Your task to perform on an android device: See recent photos Image 0: 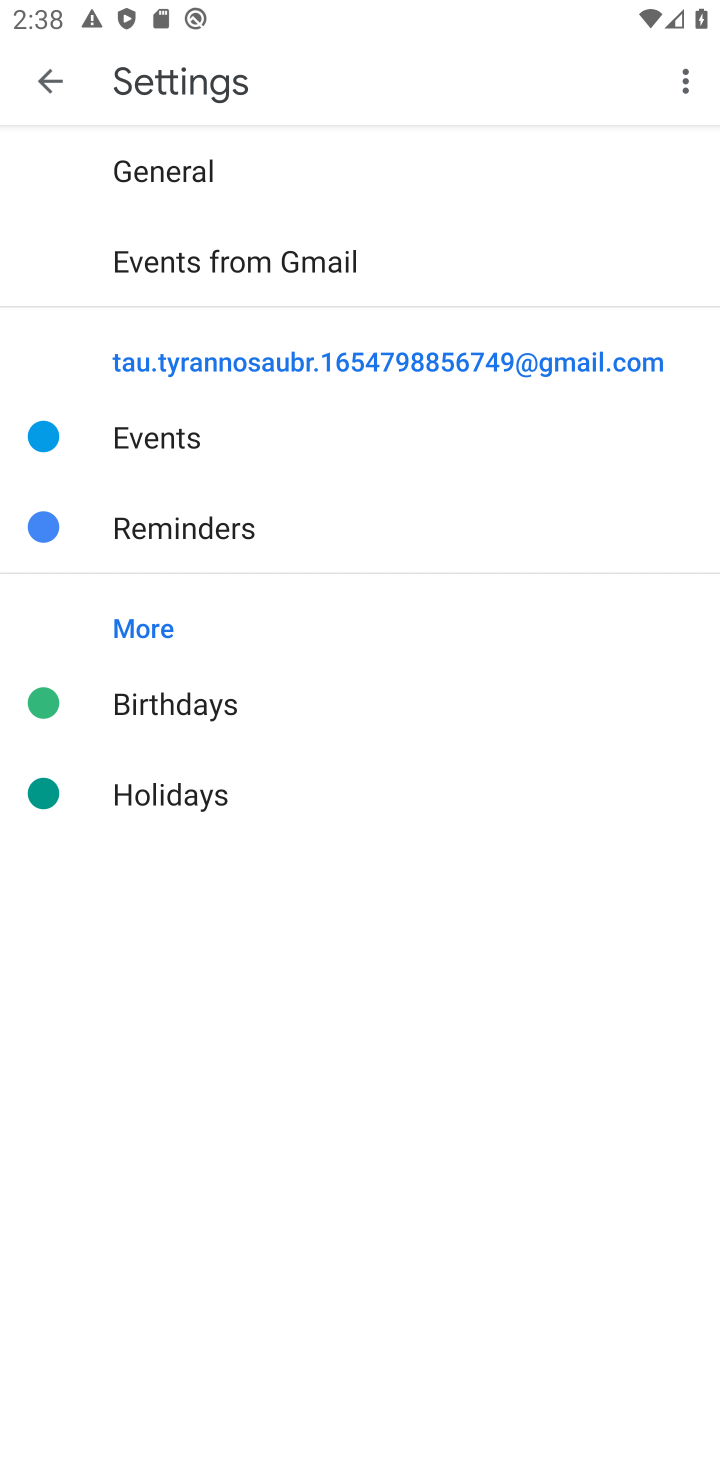
Step 0: press home button
Your task to perform on an android device: See recent photos Image 1: 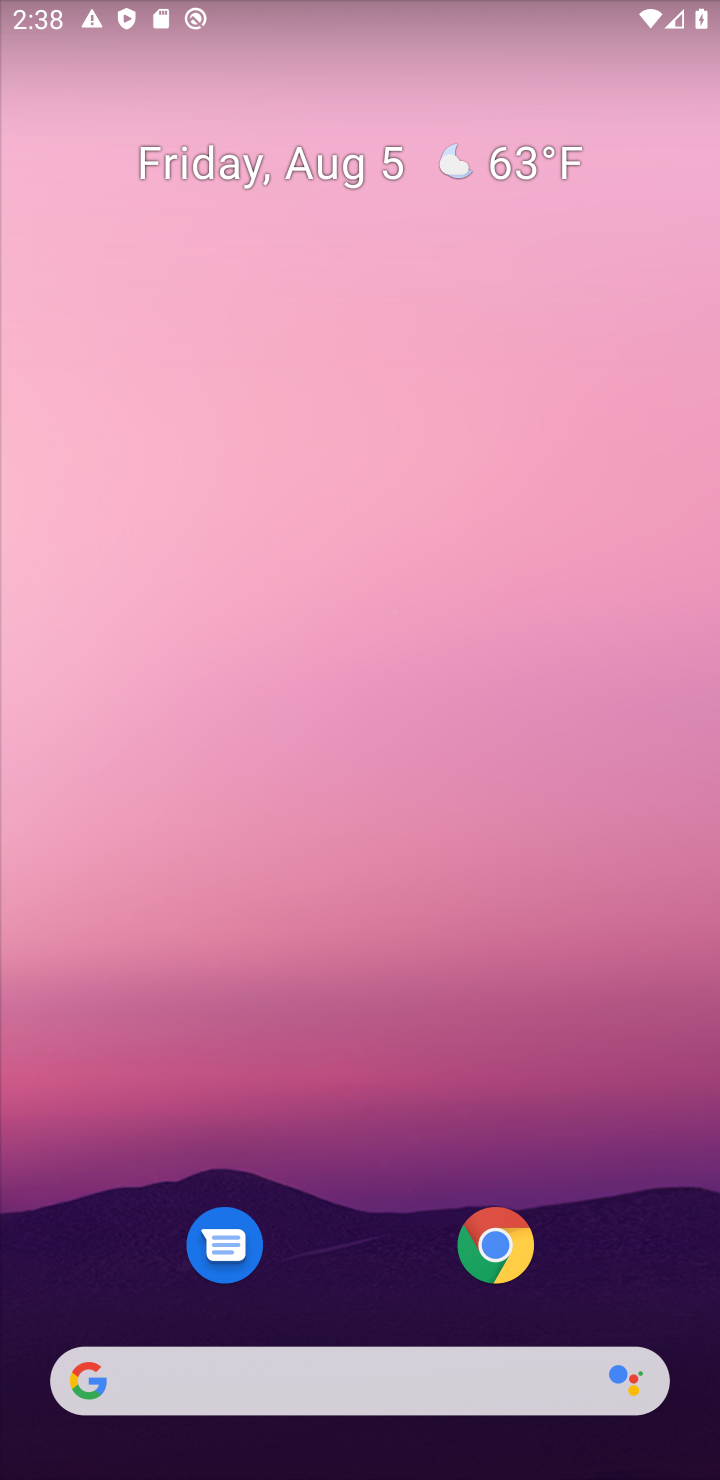
Step 1: click (369, 511)
Your task to perform on an android device: See recent photos Image 2: 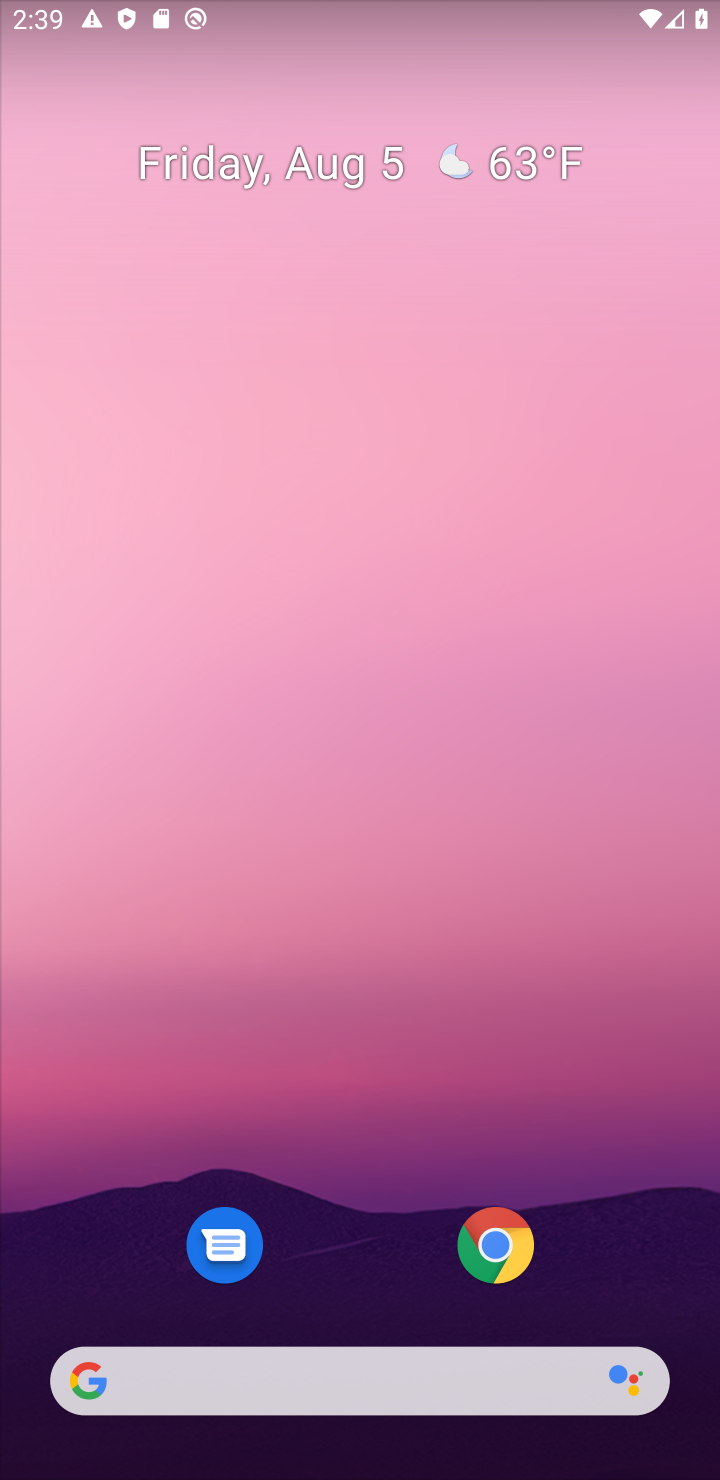
Step 2: drag from (303, 1299) to (414, 482)
Your task to perform on an android device: See recent photos Image 3: 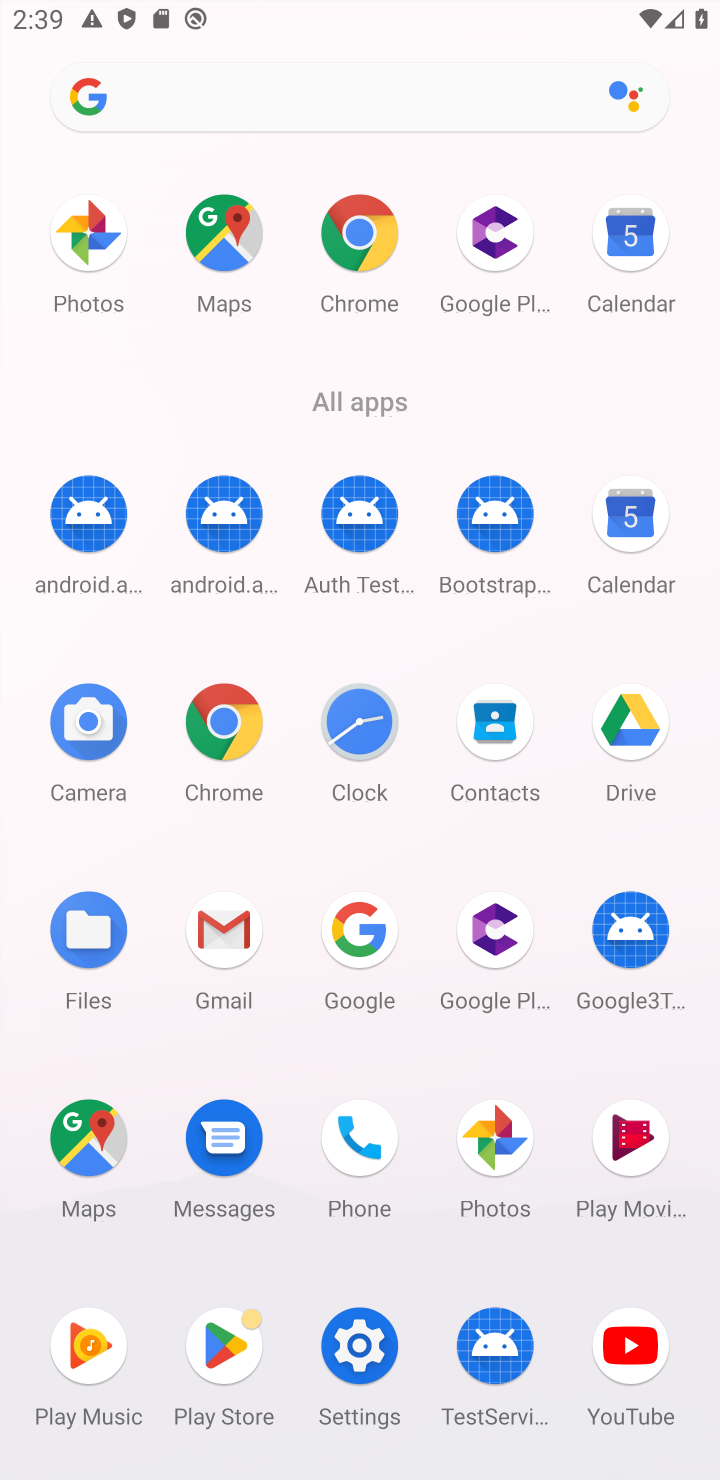
Step 3: click (496, 1126)
Your task to perform on an android device: See recent photos Image 4: 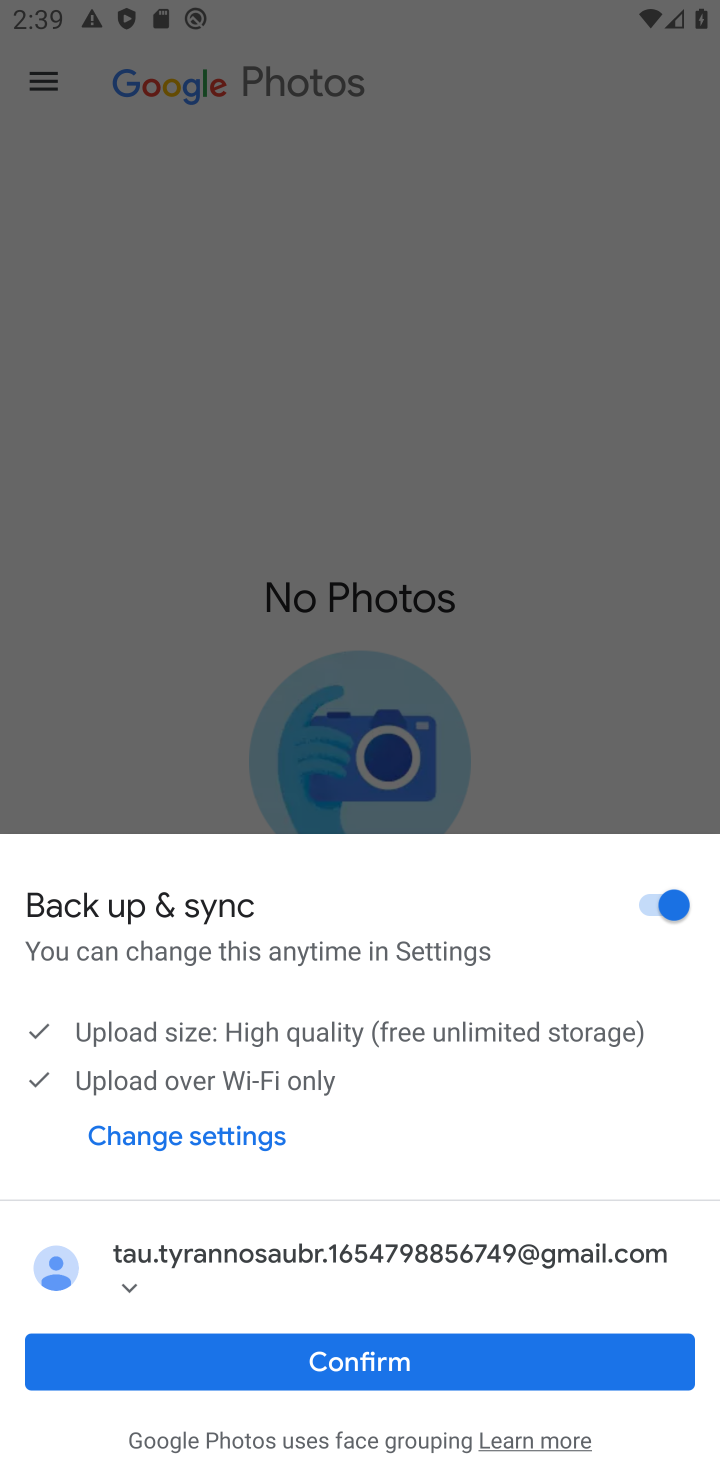
Step 4: click (402, 1351)
Your task to perform on an android device: See recent photos Image 5: 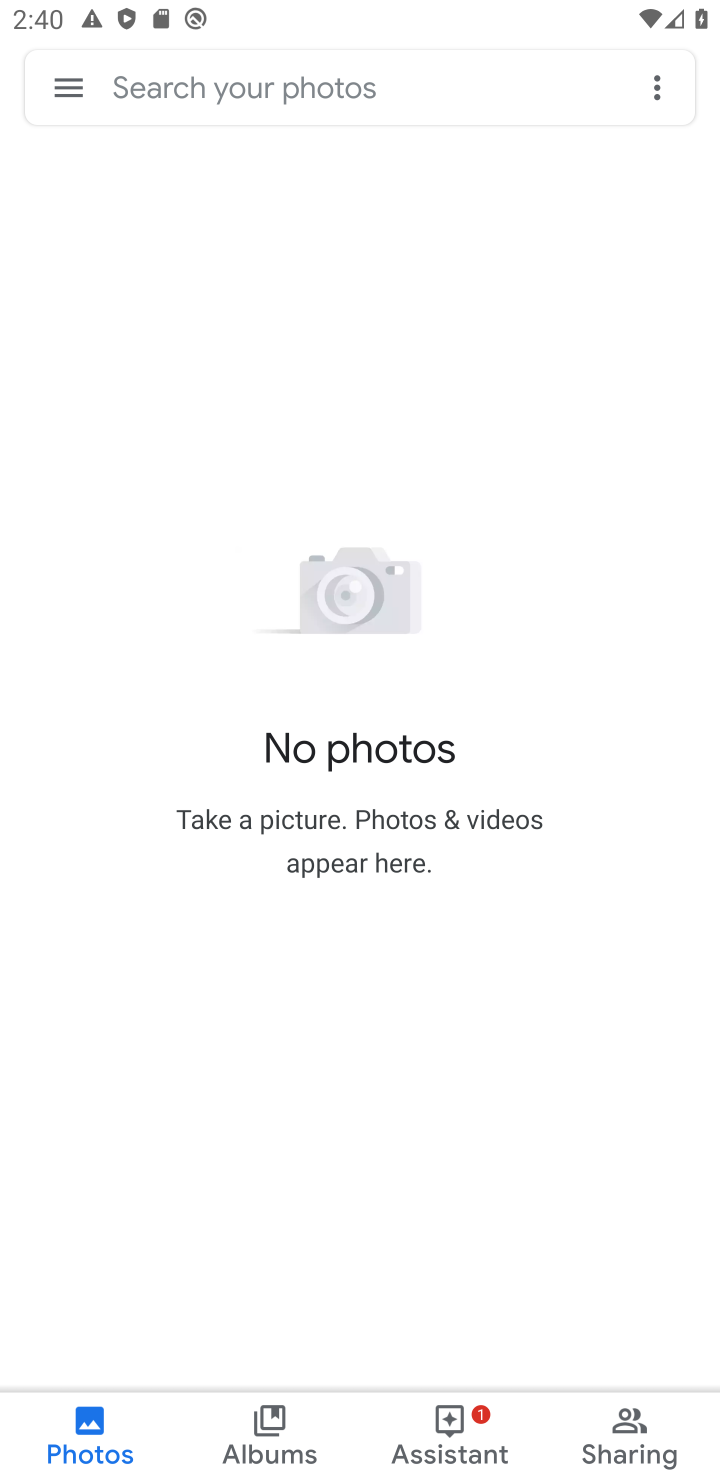
Step 5: click (284, 1425)
Your task to perform on an android device: See recent photos Image 6: 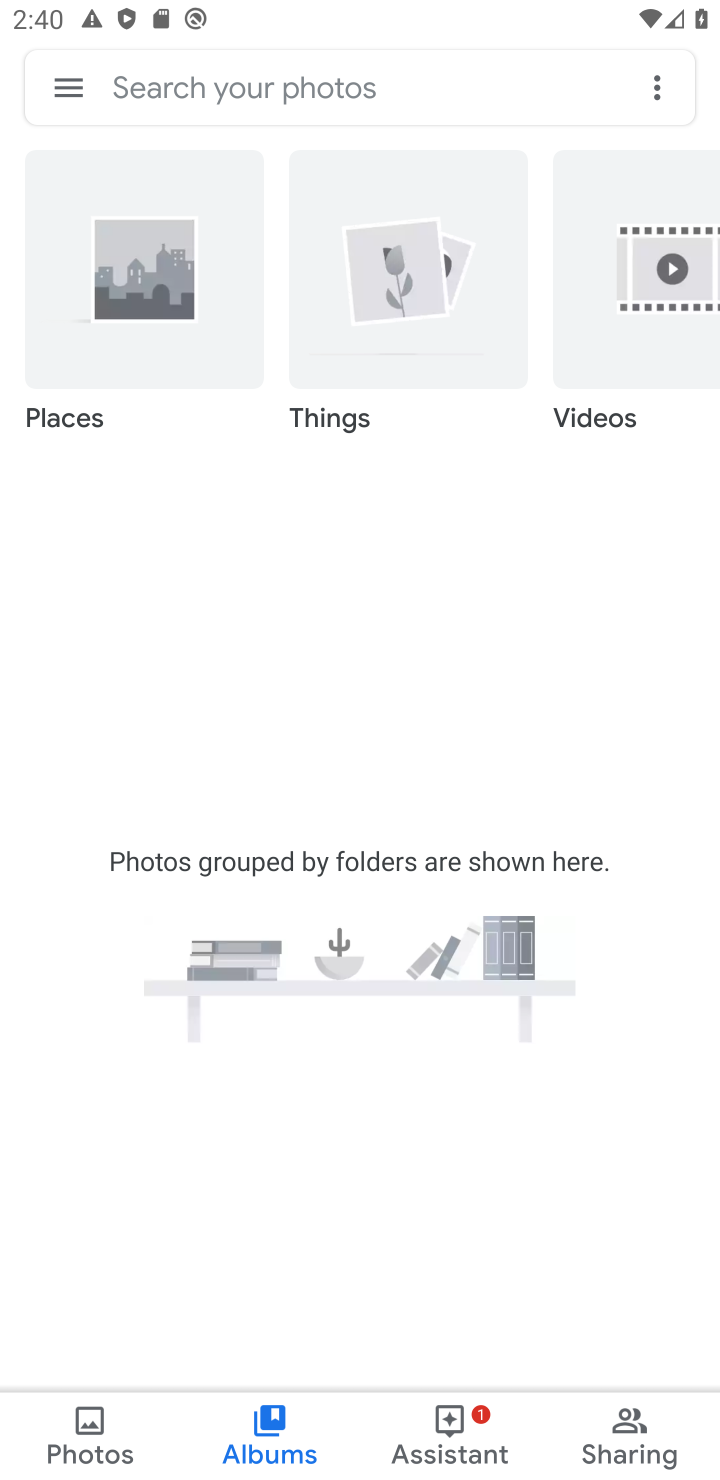
Step 6: click (99, 271)
Your task to perform on an android device: See recent photos Image 7: 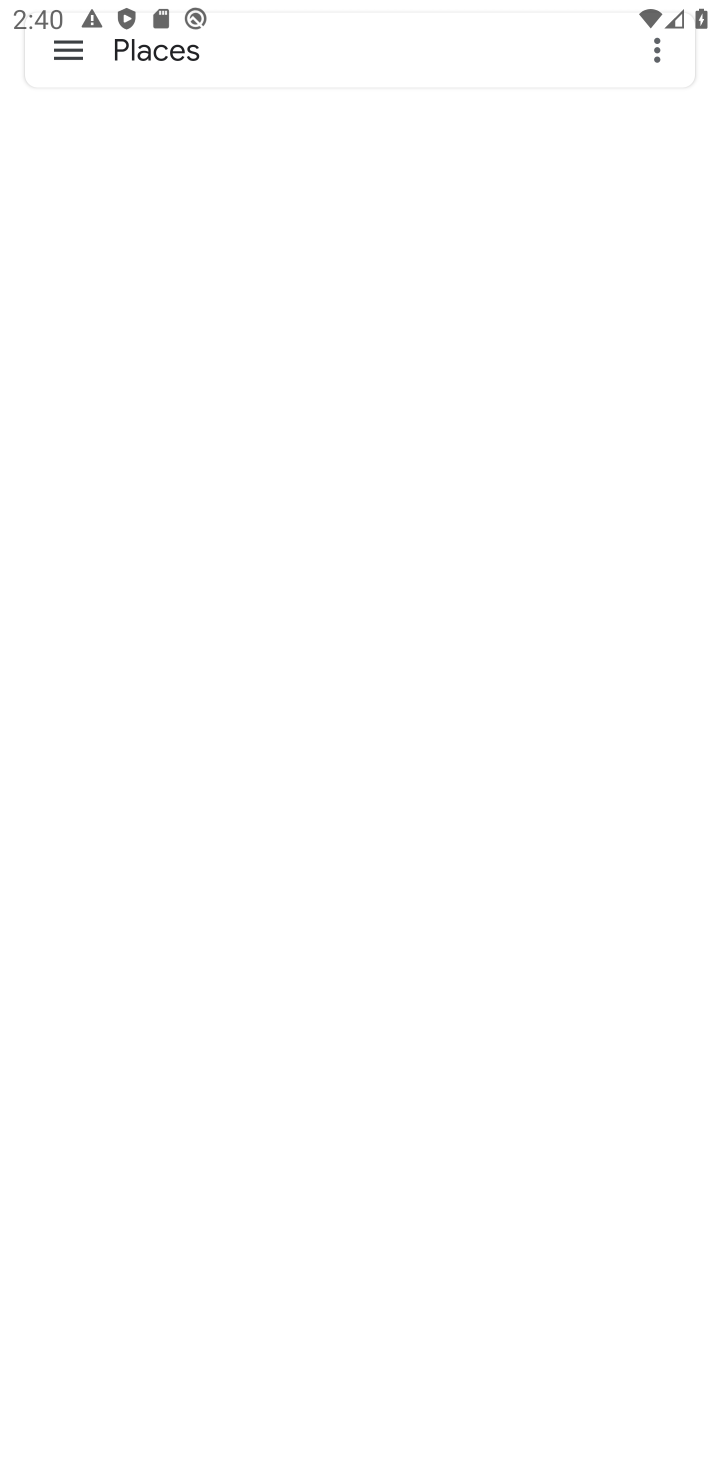
Step 7: task complete